Your task to perform on an android device: Search for the best pizza restaurants on Maps Image 0: 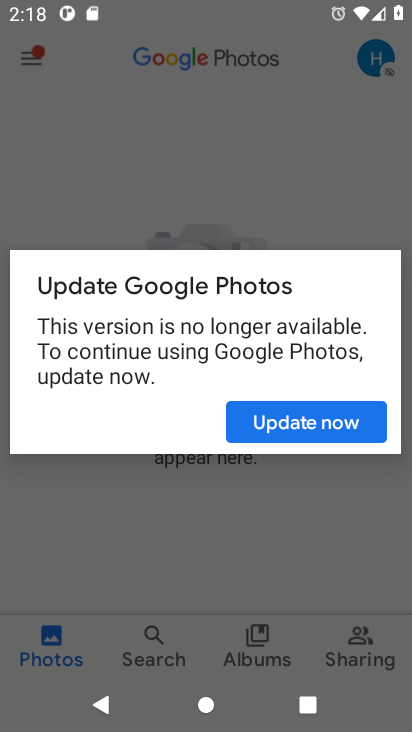
Step 0: press home button
Your task to perform on an android device: Search for the best pizza restaurants on Maps Image 1: 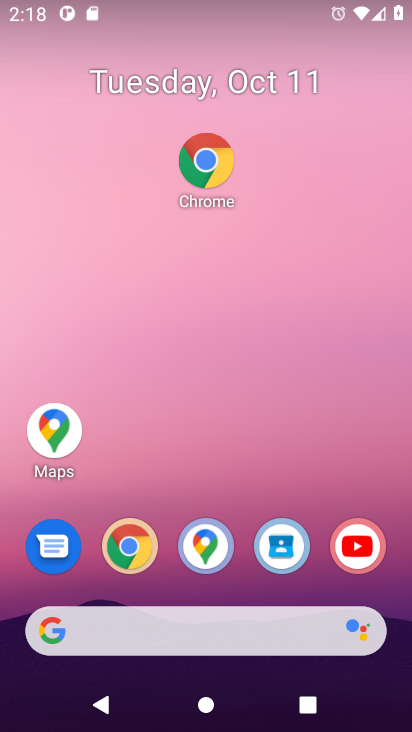
Step 1: click (138, 551)
Your task to perform on an android device: Search for the best pizza restaurants on Maps Image 2: 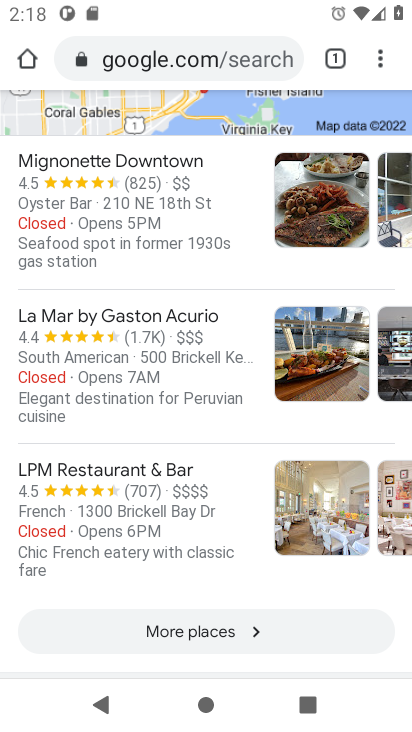
Step 2: click (228, 62)
Your task to perform on an android device: Search for the best pizza restaurants on Maps Image 3: 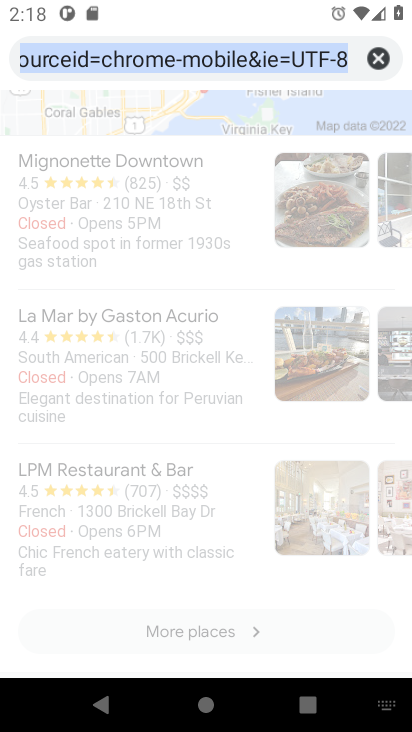
Step 3: press home button
Your task to perform on an android device: Search for the best pizza restaurants on Maps Image 4: 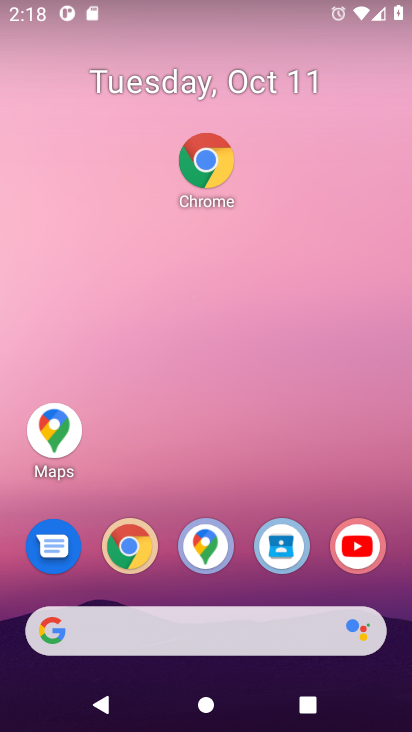
Step 4: click (214, 553)
Your task to perform on an android device: Search for the best pizza restaurants on Maps Image 5: 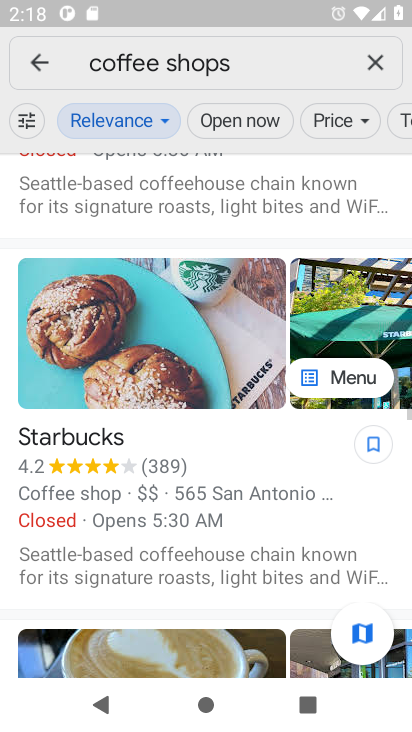
Step 5: click (367, 56)
Your task to perform on an android device: Search for the best pizza restaurants on Maps Image 6: 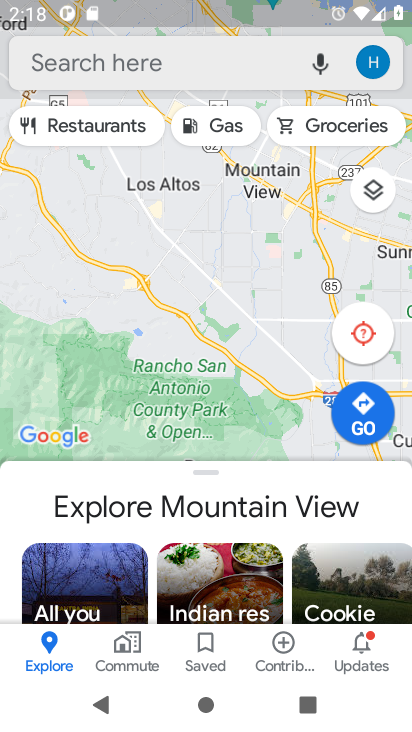
Step 6: click (213, 68)
Your task to perform on an android device: Search for the best pizza restaurants on Maps Image 7: 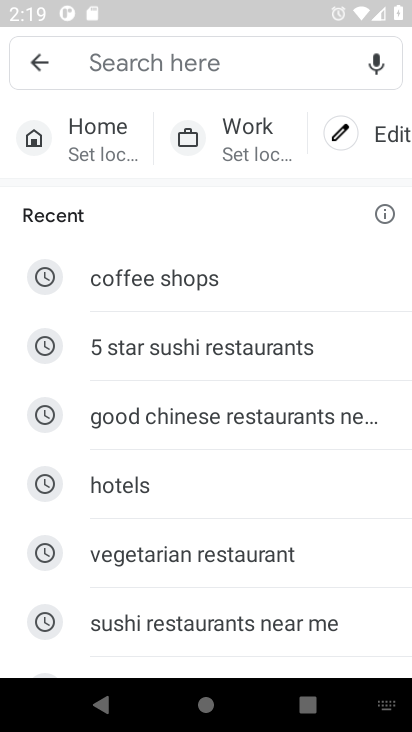
Step 7: type "best pizza restaurants"
Your task to perform on an android device: Search for the best pizza restaurants on Maps Image 8: 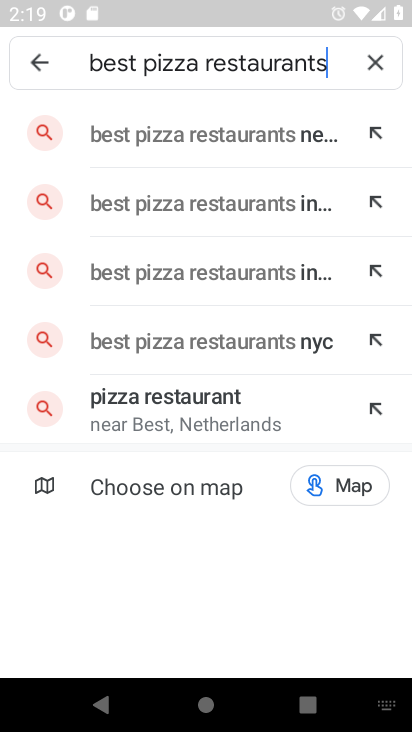
Step 8: press enter
Your task to perform on an android device: Search for the best pizza restaurants on Maps Image 9: 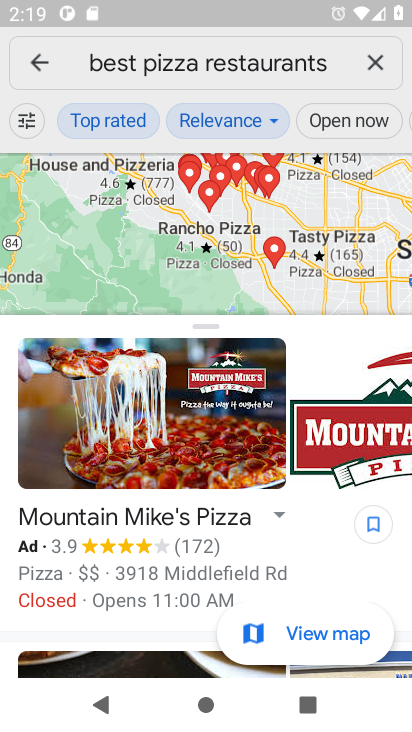
Step 9: task complete